Your task to perform on an android device: Open eBay Image 0: 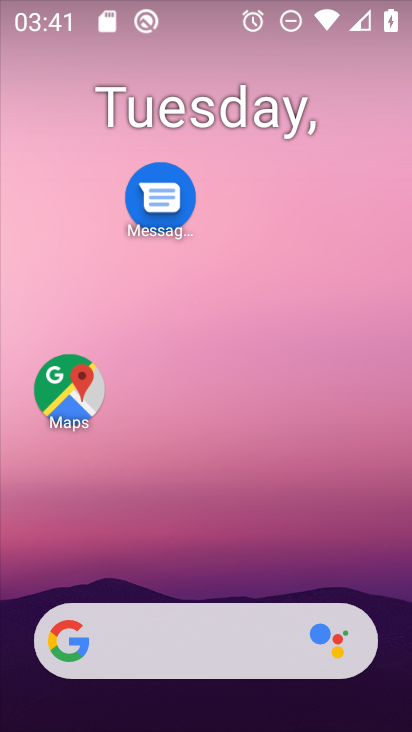
Step 0: drag from (216, 575) to (253, 221)
Your task to perform on an android device: Open eBay Image 1: 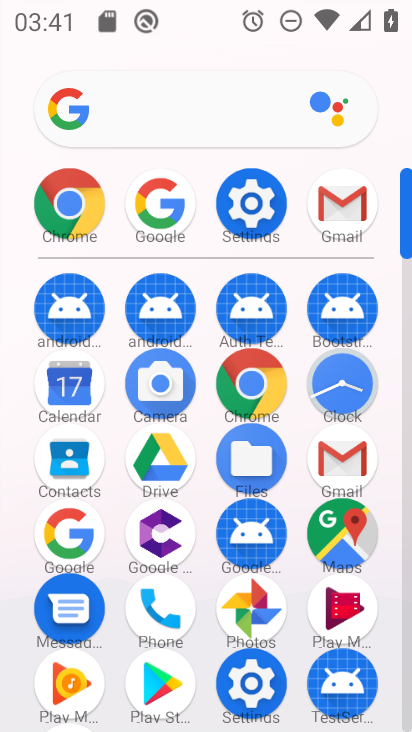
Step 1: click (66, 206)
Your task to perform on an android device: Open eBay Image 2: 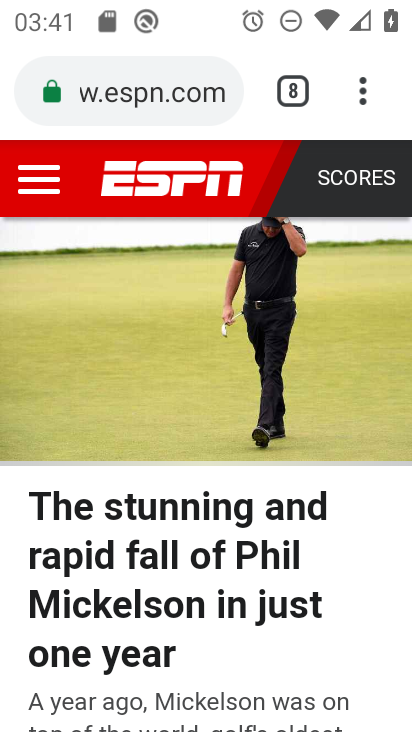
Step 2: click (293, 91)
Your task to perform on an android device: Open eBay Image 3: 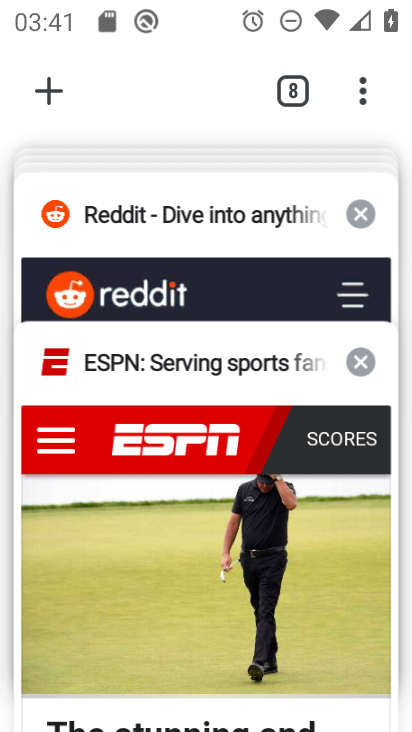
Step 3: drag from (193, 349) to (220, 543)
Your task to perform on an android device: Open eBay Image 4: 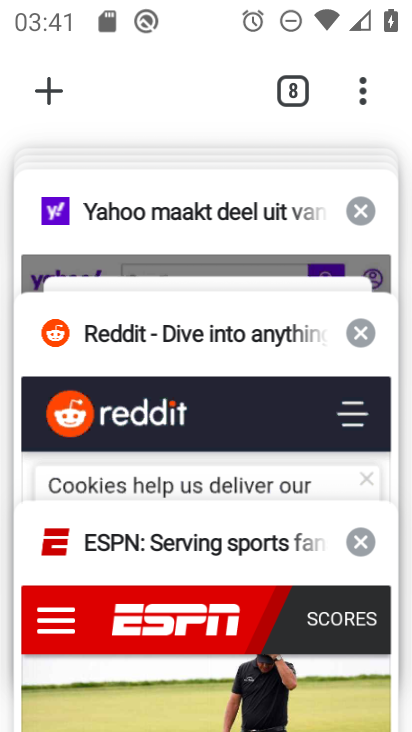
Step 4: drag from (206, 261) to (216, 492)
Your task to perform on an android device: Open eBay Image 5: 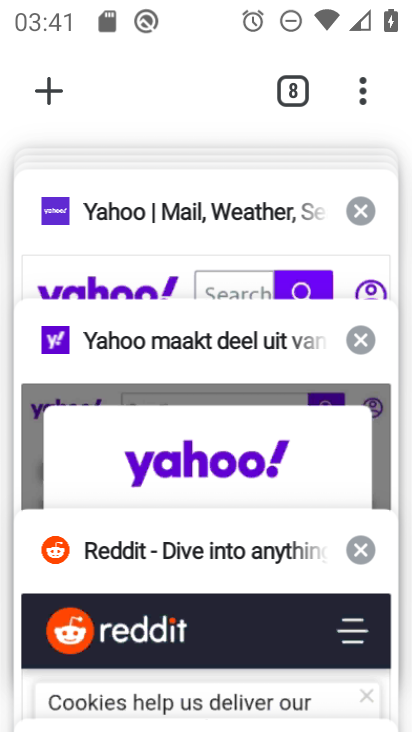
Step 5: drag from (191, 218) to (213, 441)
Your task to perform on an android device: Open eBay Image 6: 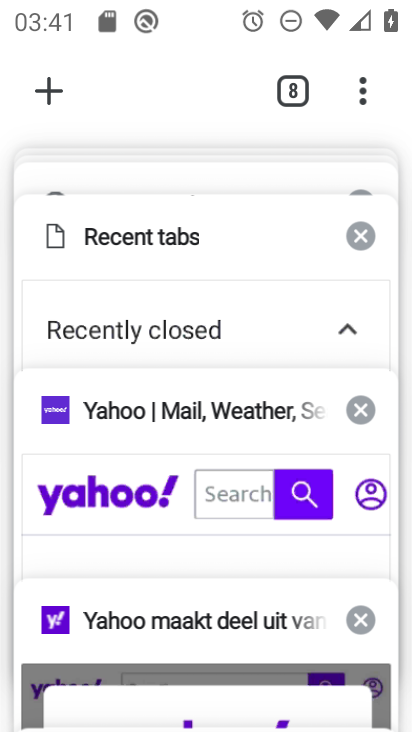
Step 6: drag from (181, 227) to (181, 462)
Your task to perform on an android device: Open eBay Image 7: 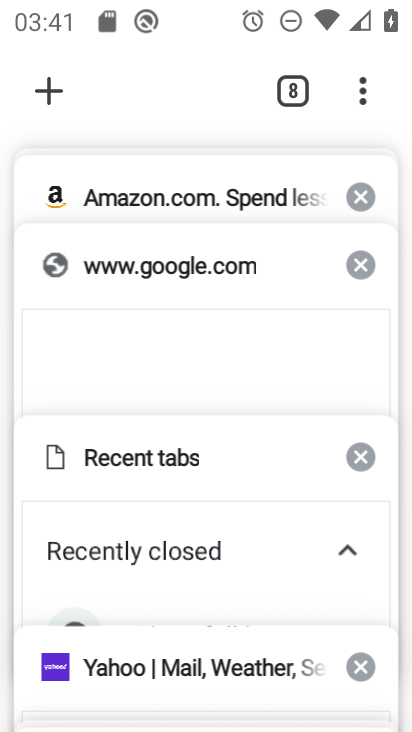
Step 7: drag from (170, 214) to (176, 471)
Your task to perform on an android device: Open eBay Image 8: 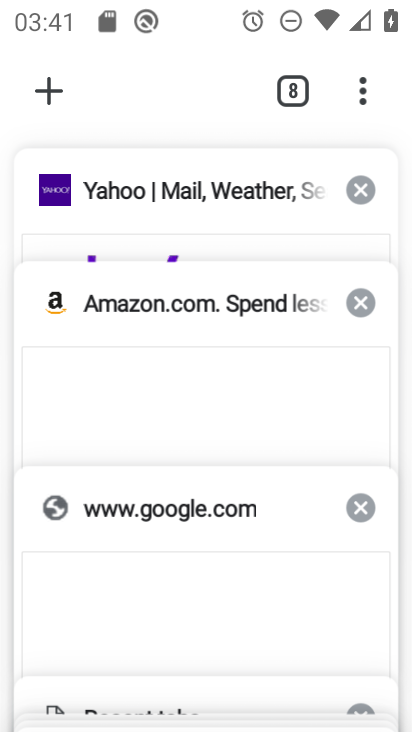
Step 8: drag from (198, 209) to (201, 470)
Your task to perform on an android device: Open eBay Image 9: 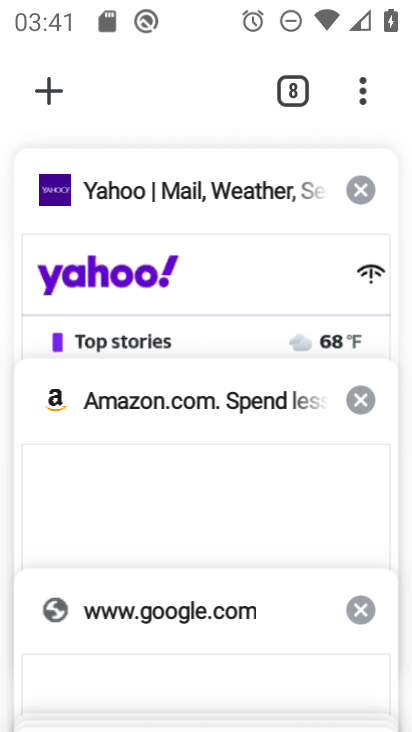
Step 9: drag from (150, 199) to (158, 451)
Your task to perform on an android device: Open eBay Image 10: 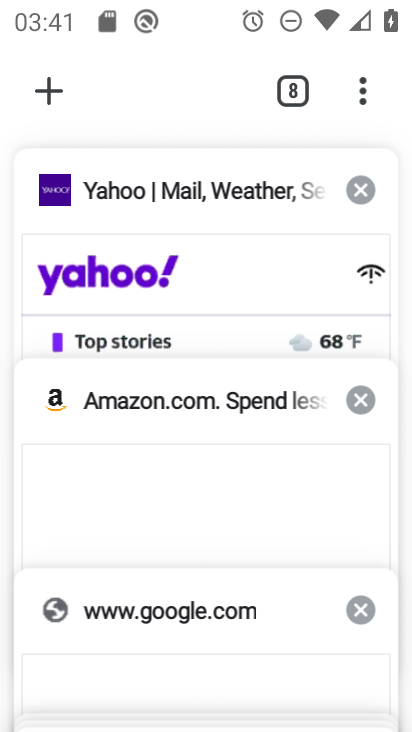
Step 10: click (50, 88)
Your task to perform on an android device: Open eBay Image 11: 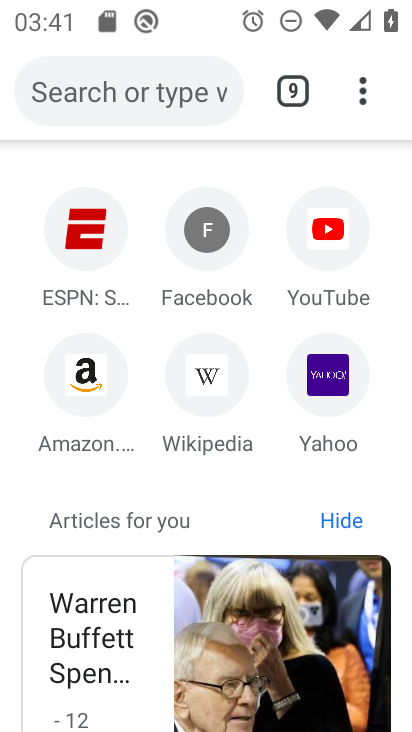
Step 11: type " eBay"
Your task to perform on an android device: Open eBay Image 12: 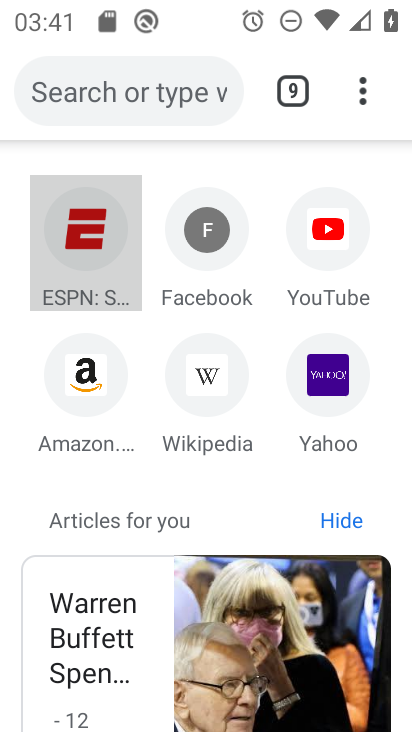
Step 12: click (158, 94)
Your task to perform on an android device: Open eBay Image 13: 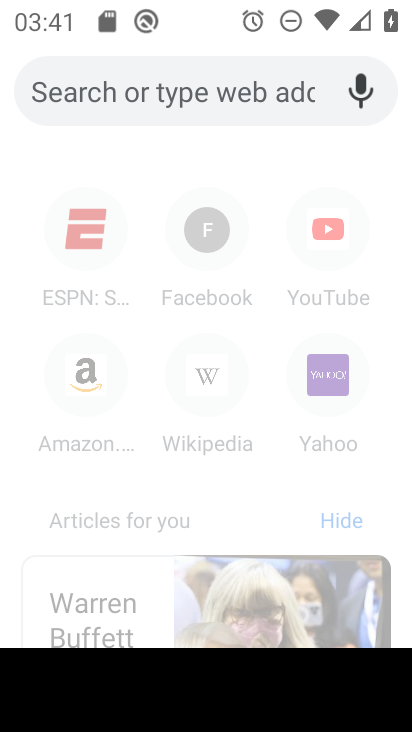
Step 13: type "eBay"
Your task to perform on an android device: Open eBay Image 14: 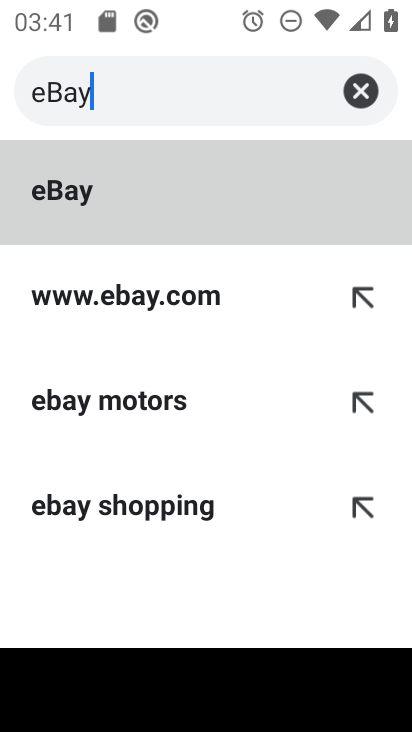
Step 14: click (158, 187)
Your task to perform on an android device: Open eBay Image 15: 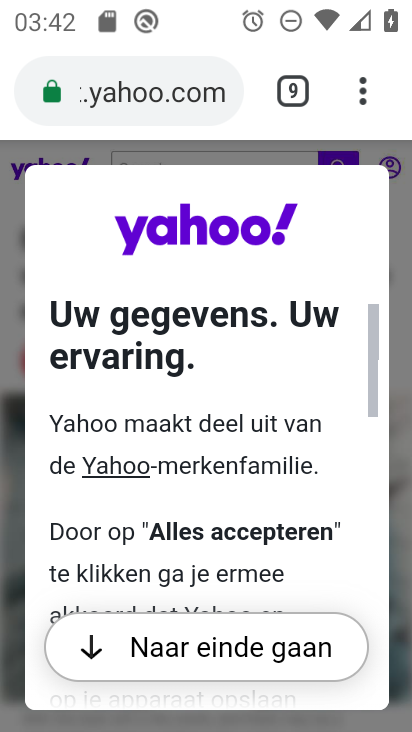
Step 15: click (293, 82)
Your task to perform on an android device: Open eBay Image 16: 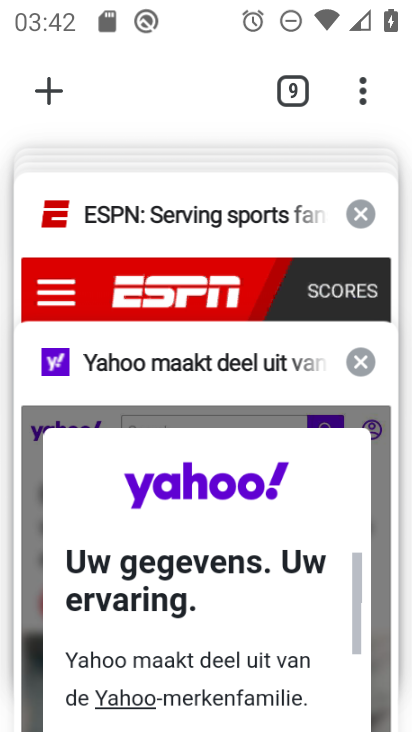
Step 16: click (33, 82)
Your task to perform on an android device: Open eBay Image 17: 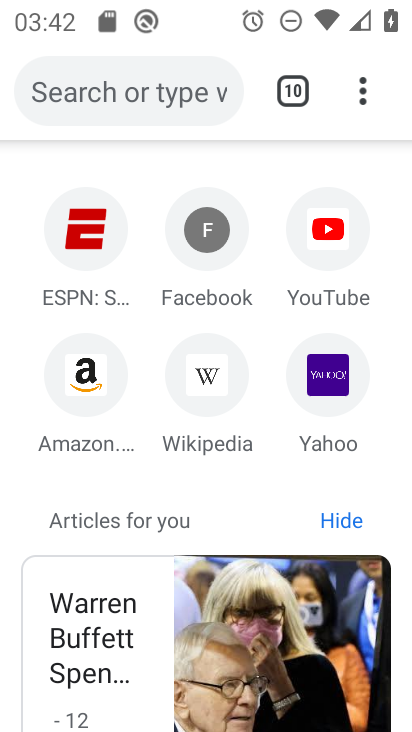
Step 17: click (174, 95)
Your task to perform on an android device: Open eBay Image 18: 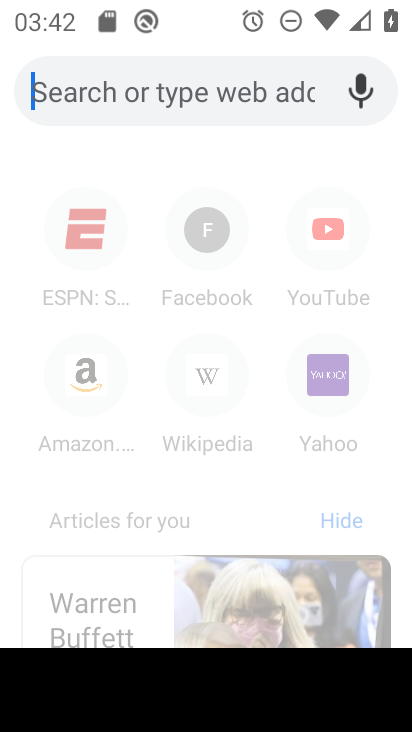
Step 18: type "eBay"
Your task to perform on an android device: Open eBay Image 19: 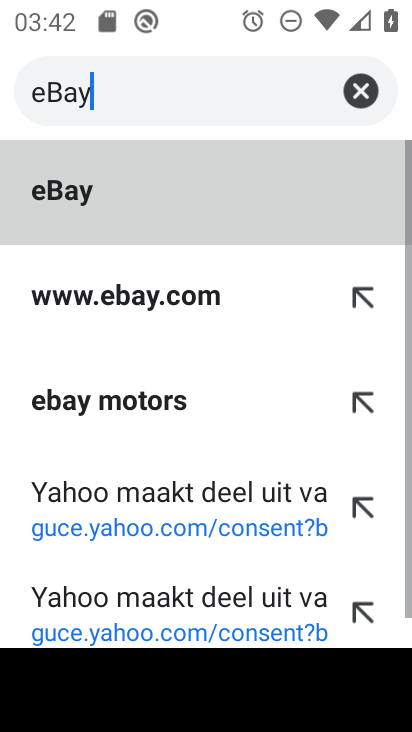
Step 19: click (210, 185)
Your task to perform on an android device: Open eBay Image 20: 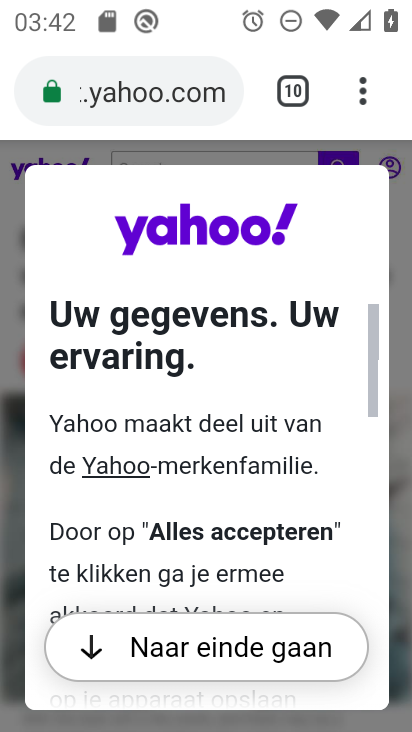
Step 20: task complete